Your task to perform on an android device: Open the calendar and show me this week's events? Image 0: 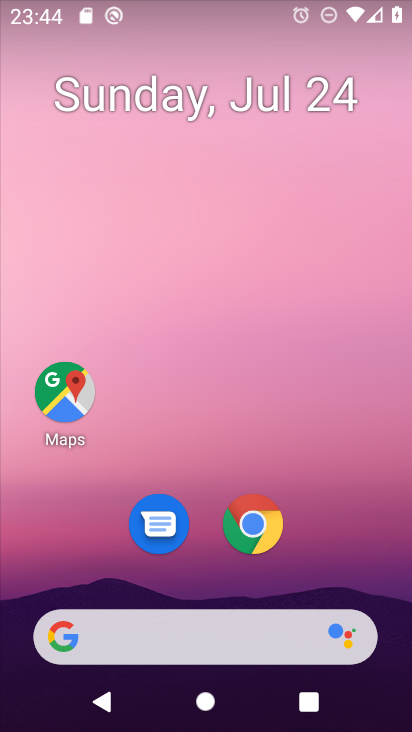
Step 0: press home button
Your task to perform on an android device: Open the calendar and show me this week's events? Image 1: 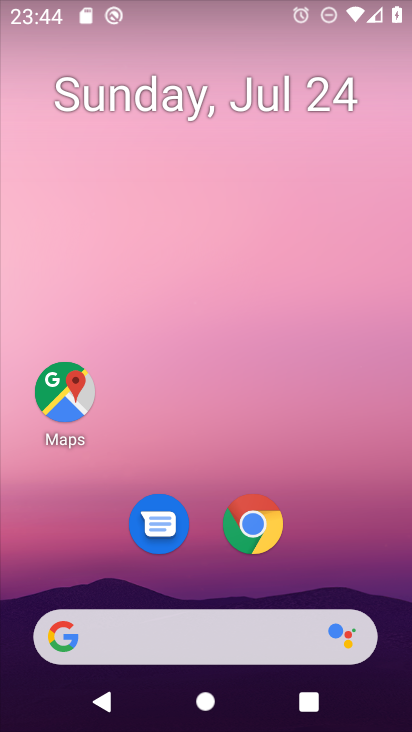
Step 1: drag from (180, 640) to (326, 0)
Your task to perform on an android device: Open the calendar and show me this week's events? Image 2: 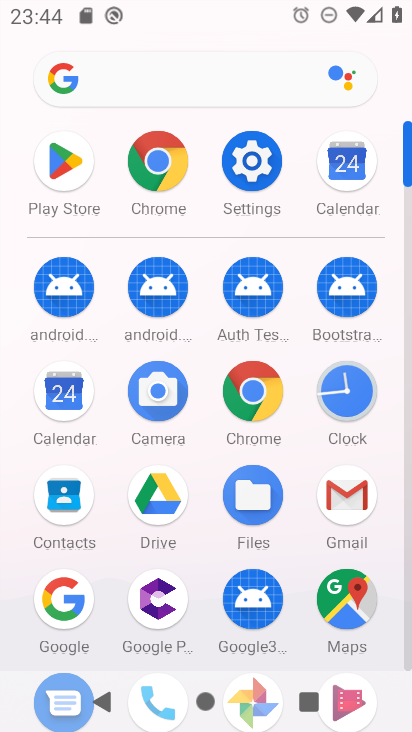
Step 2: click (349, 173)
Your task to perform on an android device: Open the calendar and show me this week's events? Image 3: 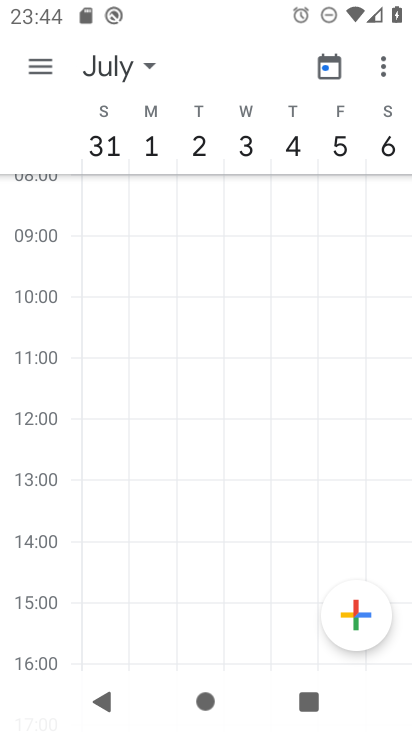
Step 3: click (121, 73)
Your task to perform on an android device: Open the calendar and show me this week's events? Image 4: 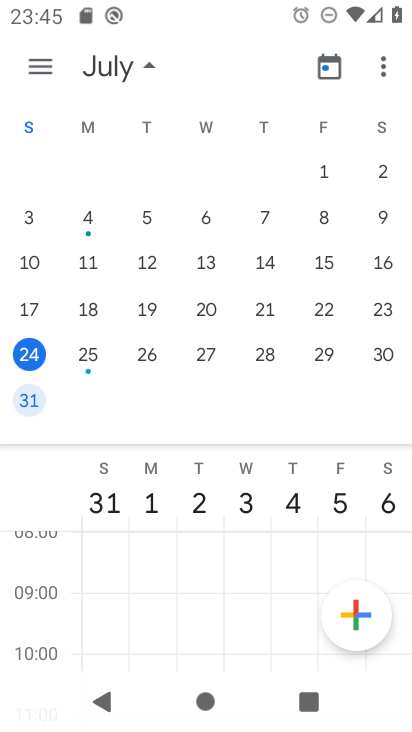
Step 4: click (26, 354)
Your task to perform on an android device: Open the calendar and show me this week's events? Image 5: 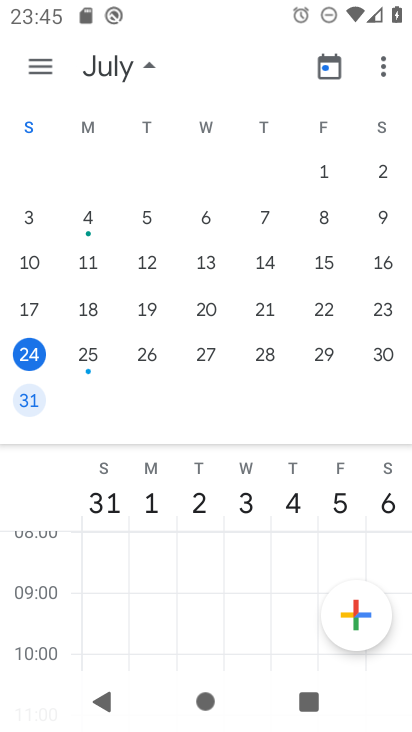
Step 5: click (35, 342)
Your task to perform on an android device: Open the calendar and show me this week's events? Image 6: 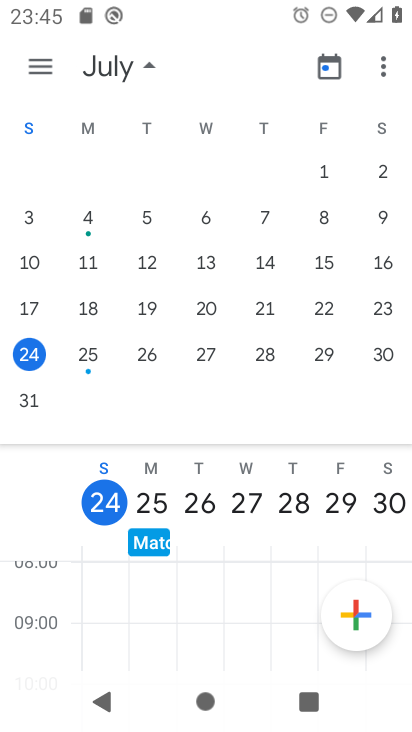
Step 6: click (48, 69)
Your task to perform on an android device: Open the calendar and show me this week's events? Image 7: 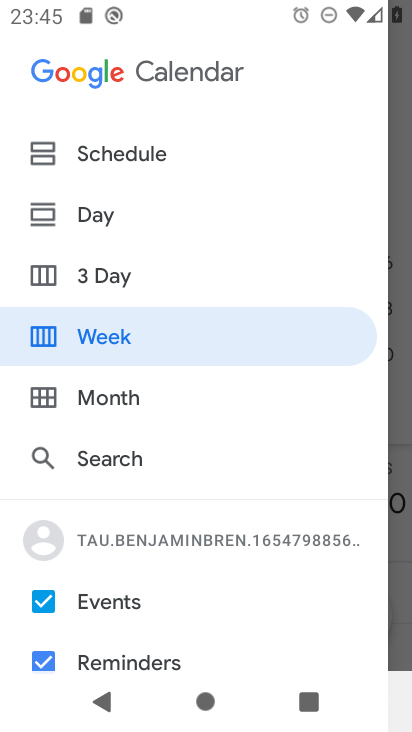
Step 7: click (115, 149)
Your task to perform on an android device: Open the calendar and show me this week's events? Image 8: 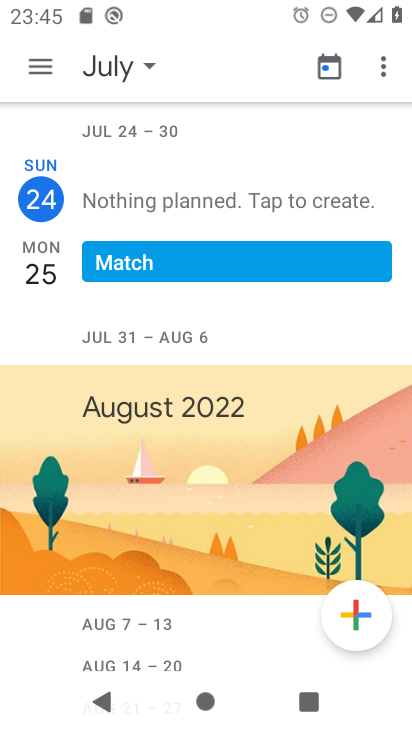
Step 8: click (224, 263)
Your task to perform on an android device: Open the calendar and show me this week's events? Image 9: 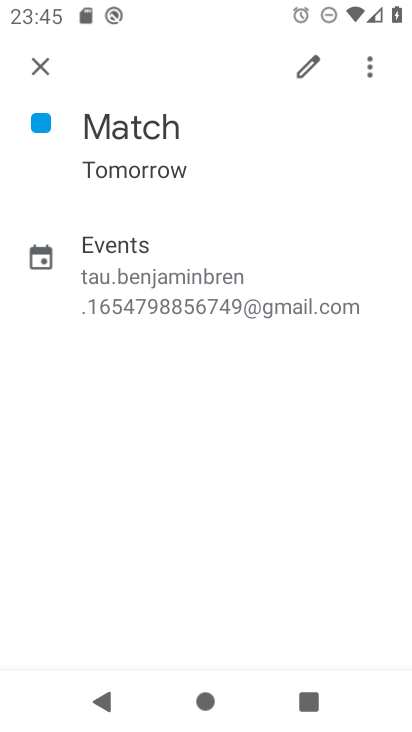
Step 9: task complete